Your task to perform on an android device: check out phone information Image 0: 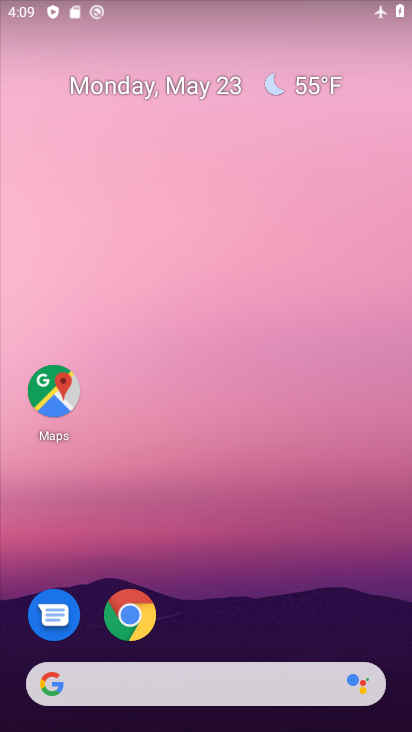
Step 0: drag from (379, 623) to (386, 278)
Your task to perform on an android device: check out phone information Image 1: 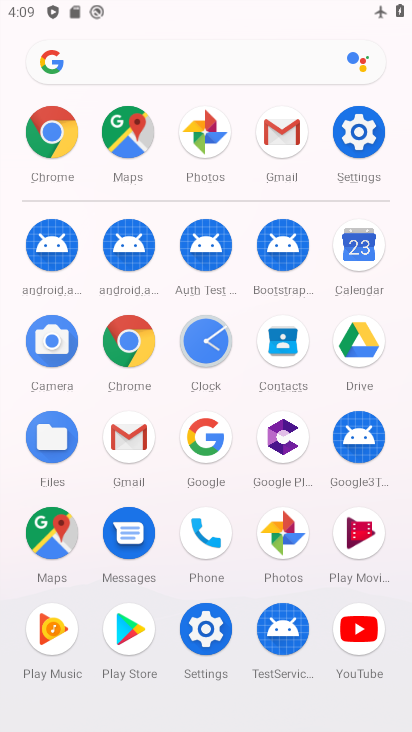
Step 1: click (204, 543)
Your task to perform on an android device: check out phone information Image 2: 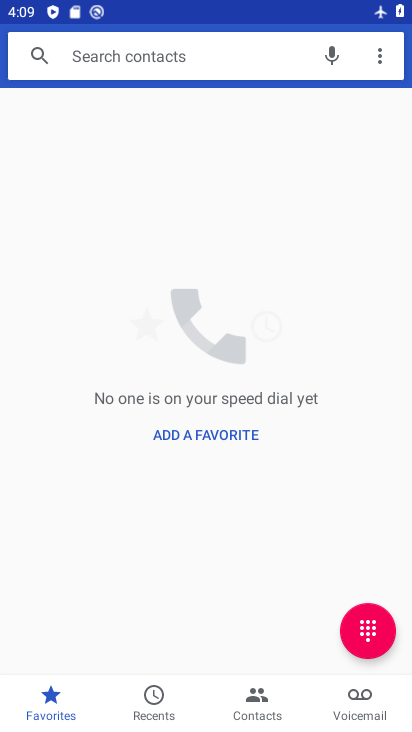
Step 2: click (152, 701)
Your task to perform on an android device: check out phone information Image 3: 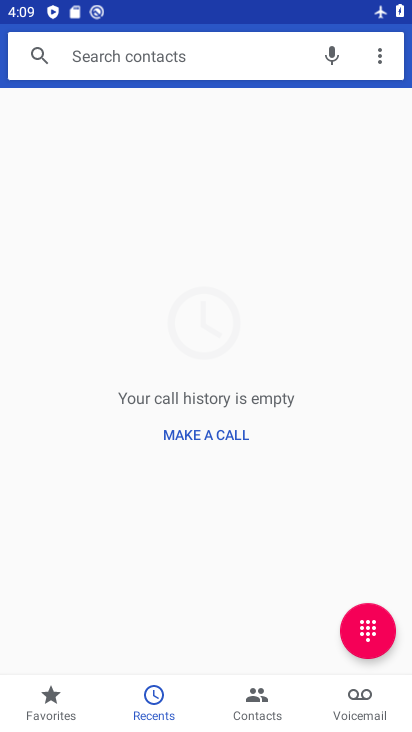
Step 3: task complete